Your task to perform on an android device: Open Yahoo.com Image 0: 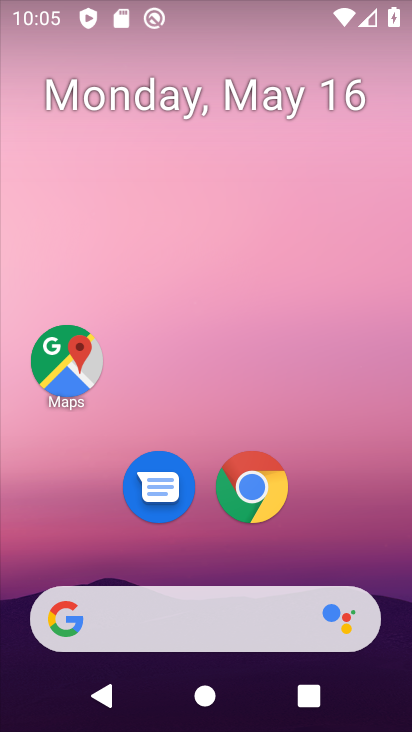
Step 0: click (247, 499)
Your task to perform on an android device: Open Yahoo.com Image 1: 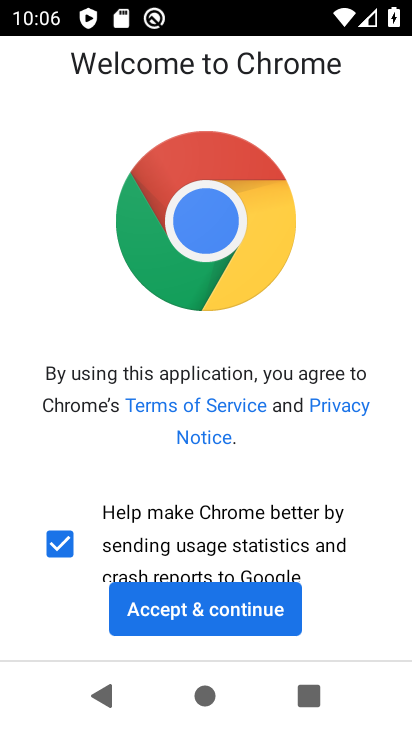
Step 1: click (185, 628)
Your task to perform on an android device: Open Yahoo.com Image 2: 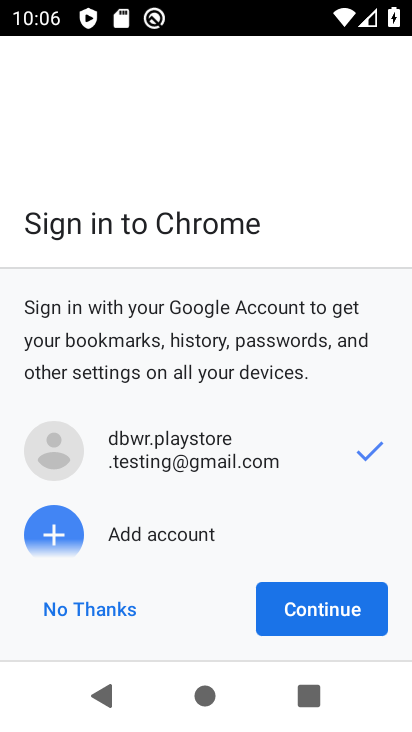
Step 2: click (324, 609)
Your task to perform on an android device: Open Yahoo.com Image 3: 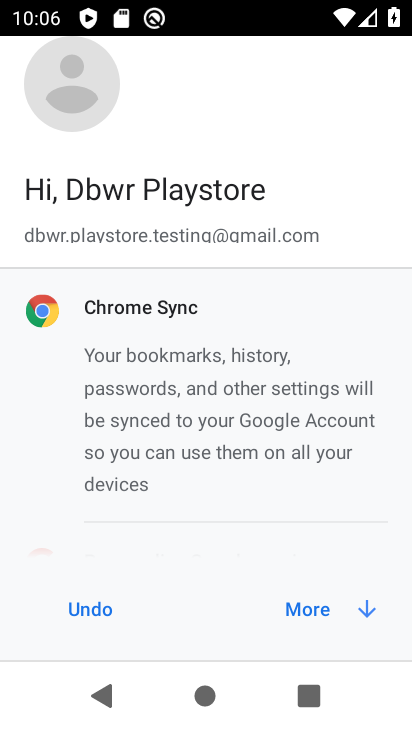
Step 3: click (324, 609)
Your task to perform on an android device: Open Yahoo.com Image 4: 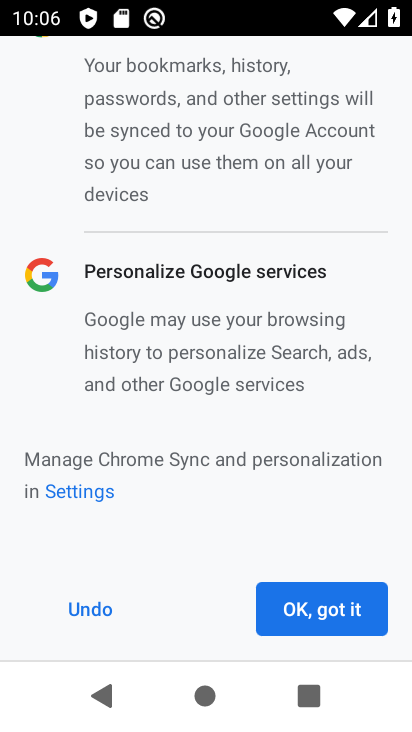
Step 4: click (324, 609)
Your task to perform on an android device: Open Yahoo.com Image 5: 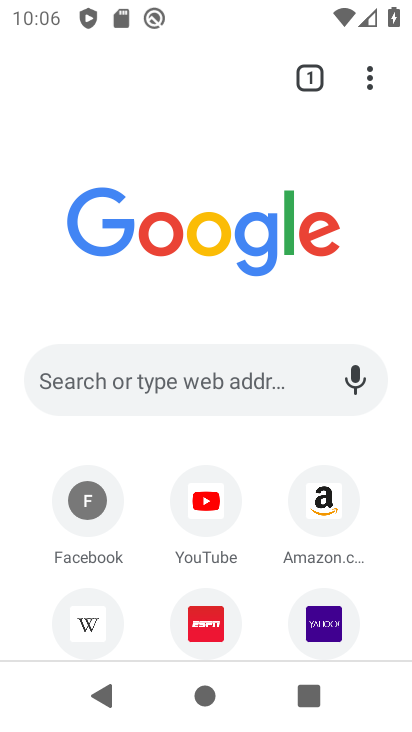
Step 5: click (297, 634)
Your task to perform on an android device: Open Yahoo.com Image 6: 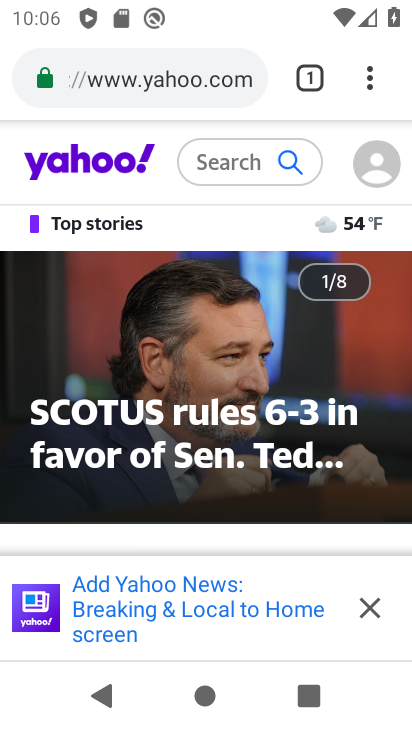
Step 6: task complete